Your task to perform on an android device: Go to Yahoo.com Image 0: 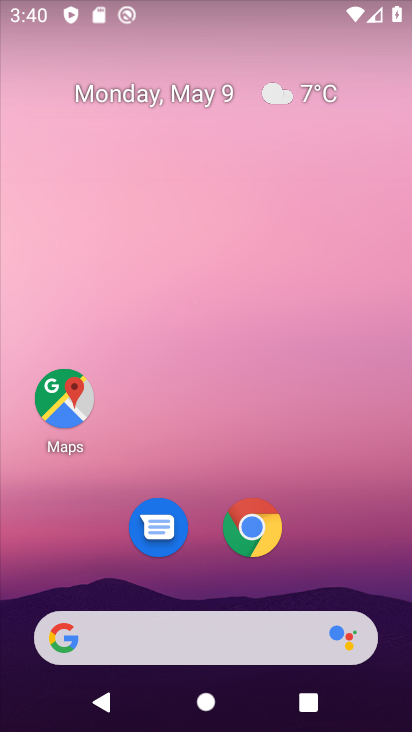
Step 0: click (226, 650)
Your task to perform on an android device: Go to Yahoo.com Image 1: 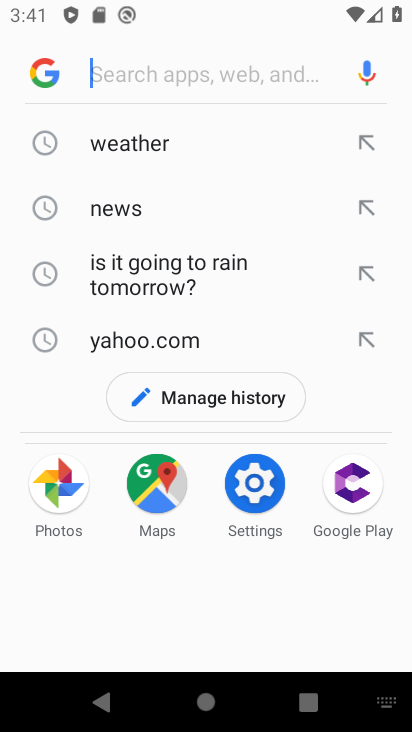
Step 1: click (97, 348)
Your task to perform on an android device: Go to Yahoo.com Image 2: 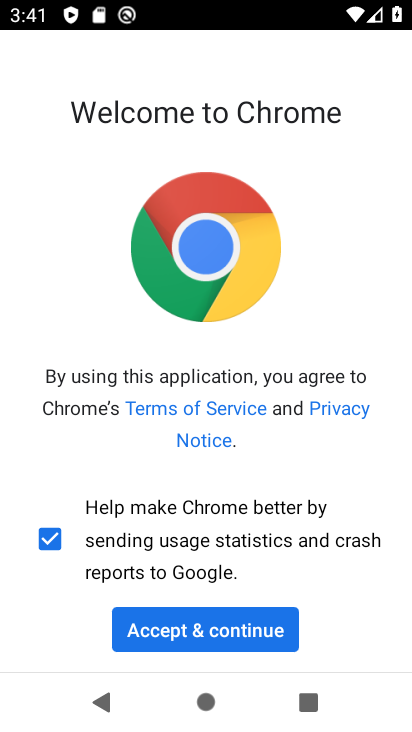
Step 2: click (230, 639)
Your task to perform on an android device: Go to Yahoo.com Image 3: 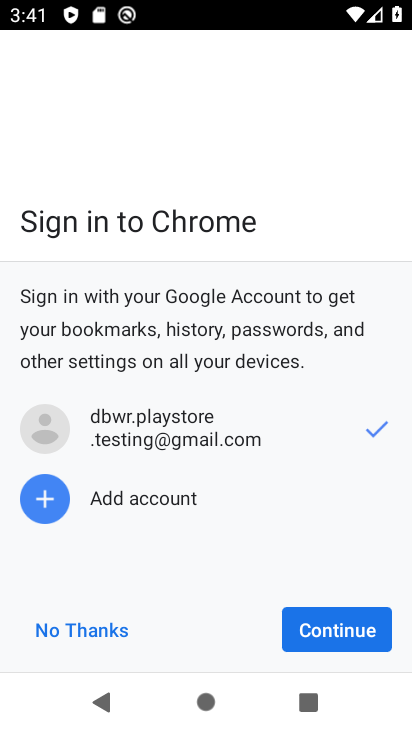
Step 3: click (314, 627)
Your task to perform on an android device: Go to Yahoo.com Image 4: 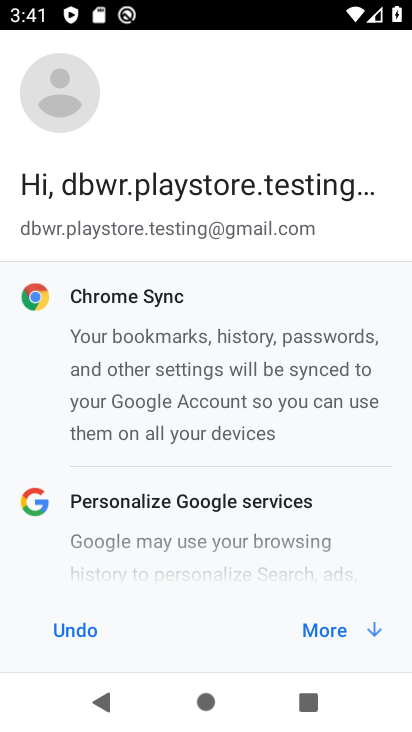
Step 4: click (314, 627)
Your task to perform on an android device: Go to Yahoo.com Image 5: 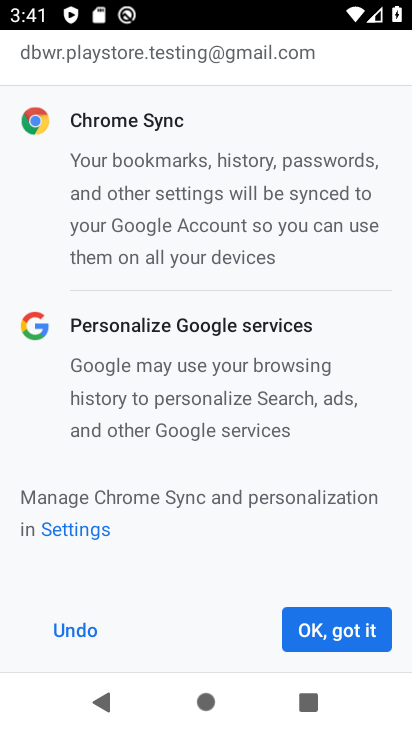
Step 5: click (314, 627)
Your task to perform on an android device: Go to Yahoo.com Image 6: 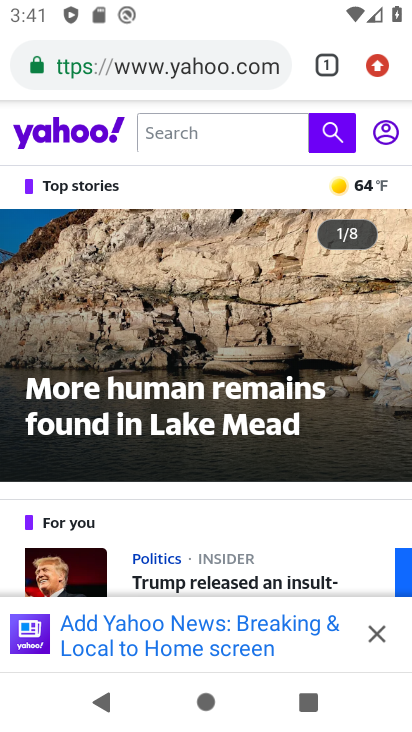
Step 6: task complete